Your task to perform on an android device: check data usage Image 0: 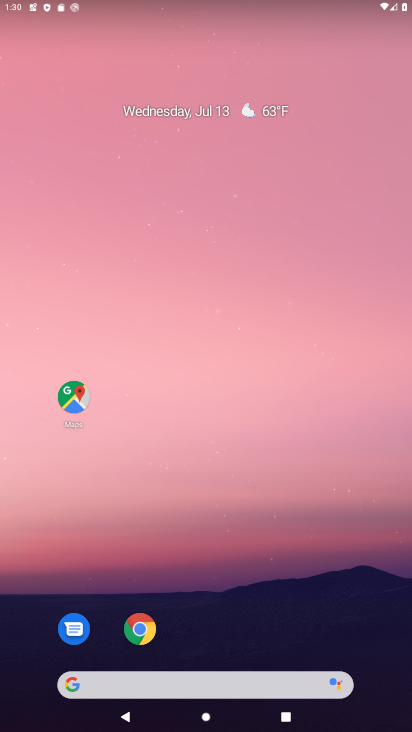
Step 0: drag from (174, 595) to (251, 184)
Your task to perform on an android device: check data usage Image 1: 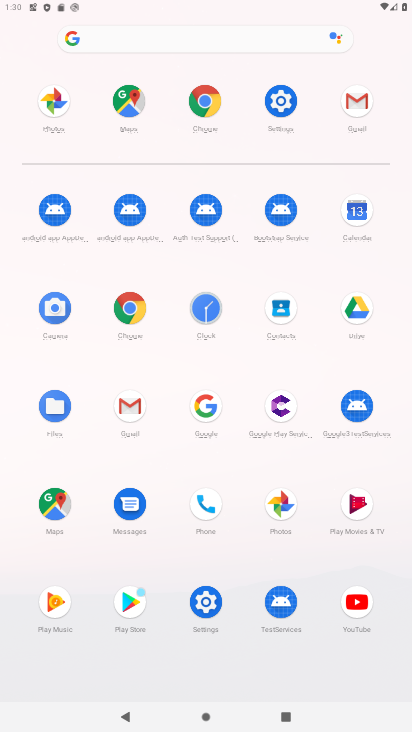
Step 1: click (205, 604)
Your task to perform on an android device: check data usage Image 2: 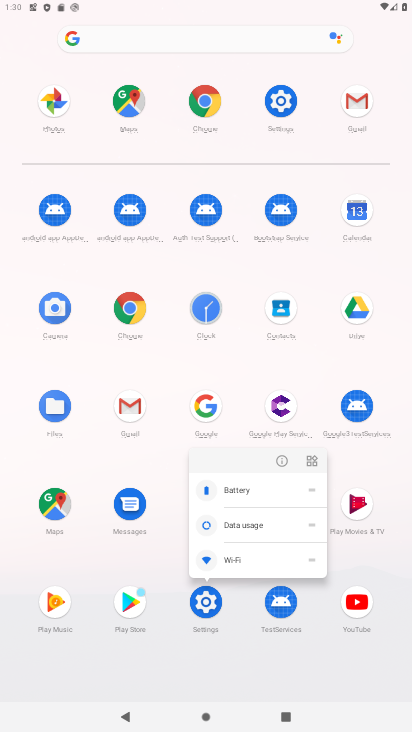
Step 2: click (234, 514)
Your task to perform on an android device: check data usage Image 3: 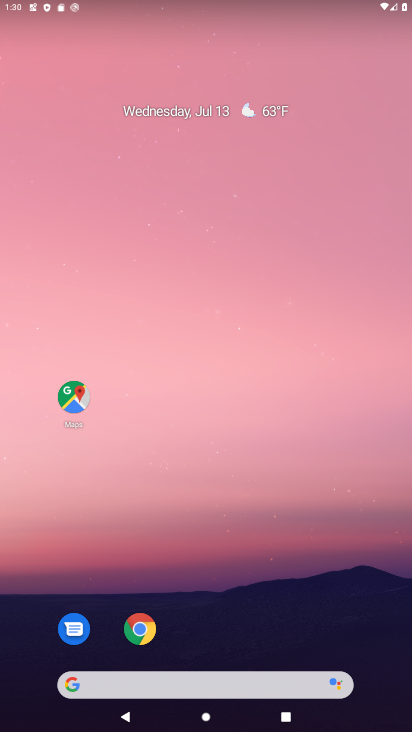
Step 3: drag from (195, 592) to (207, 155)
Your task to perform on an android device: check data usage Image 4: 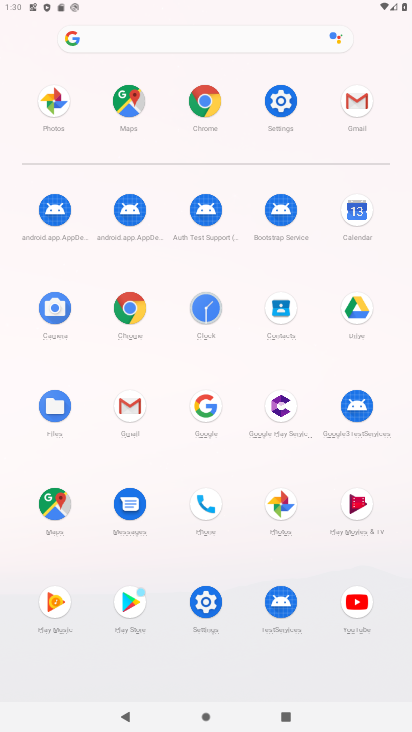
Step 4: click (278, 97)
Your task to perform on an android device: check data usage Image 5: 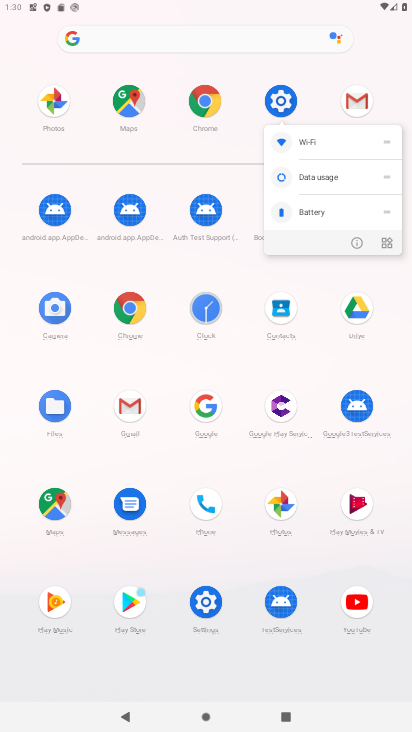
Step 5: click (351, 241)
Your task to perform on an android device: check data usage Image 6: 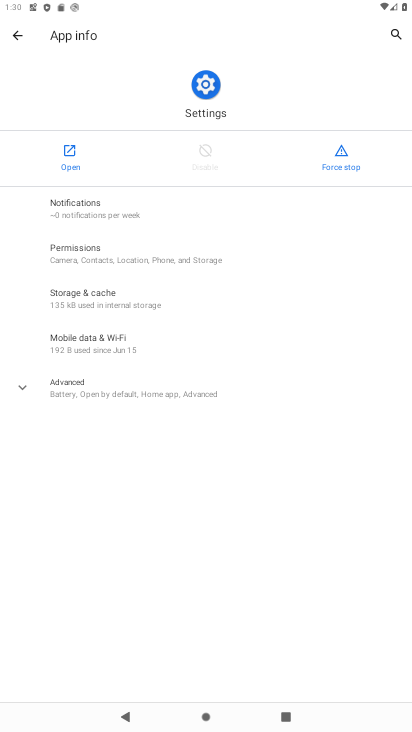
Step 6: click (72, 162)
Your task to perform on an android device: check data usage Image 7: 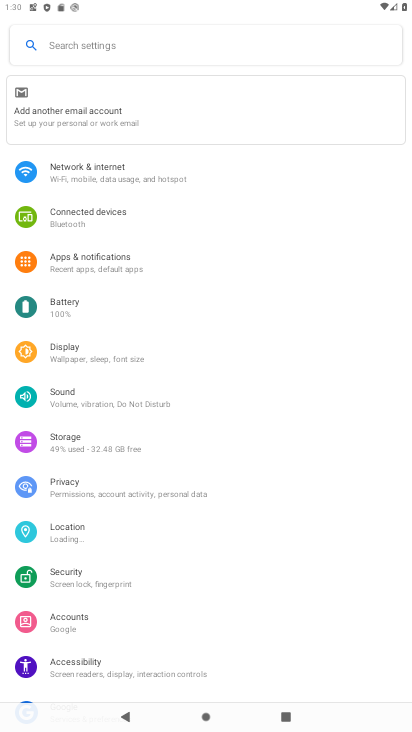
Step 7: drag from (163, 554) to (165, 286)
Your task to perform on an android device: check data usage Image 8: 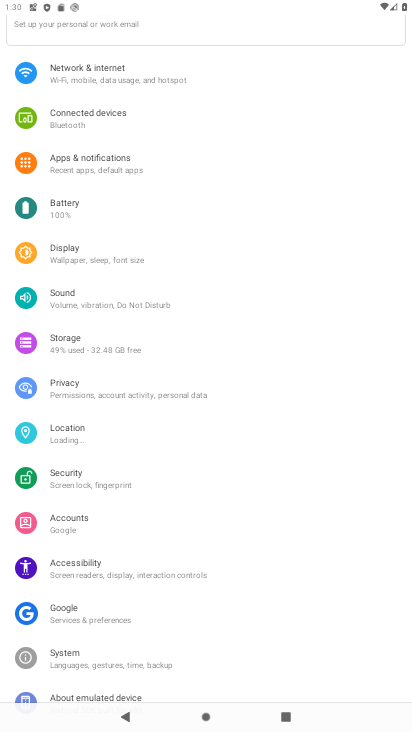
Step 8: drag from (150, 207) to (234, 694)
Your task to perform on an android device: check data usage Image 9: 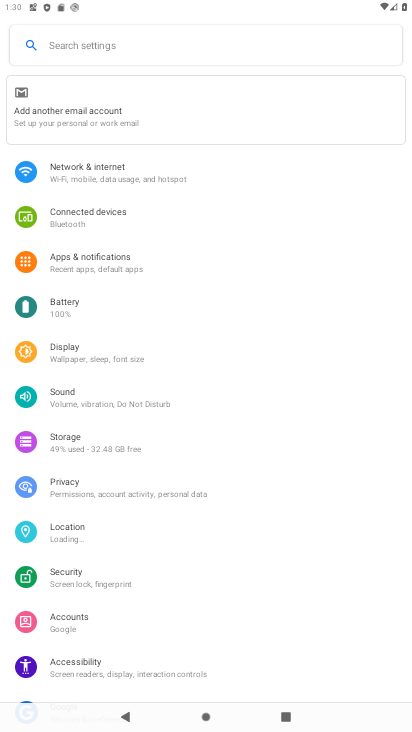
Step 9: click (143, 168)
Your task to perform on an android device: check data usage Image 10: 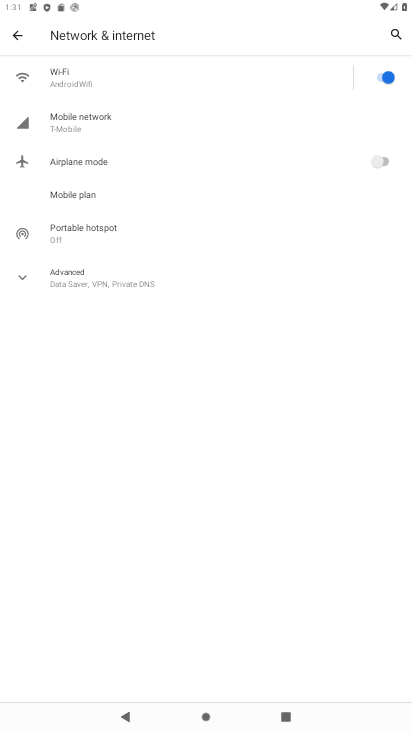
Step 10: click (123, 112)
Your task to perform on an android device: check data usage Image 11: 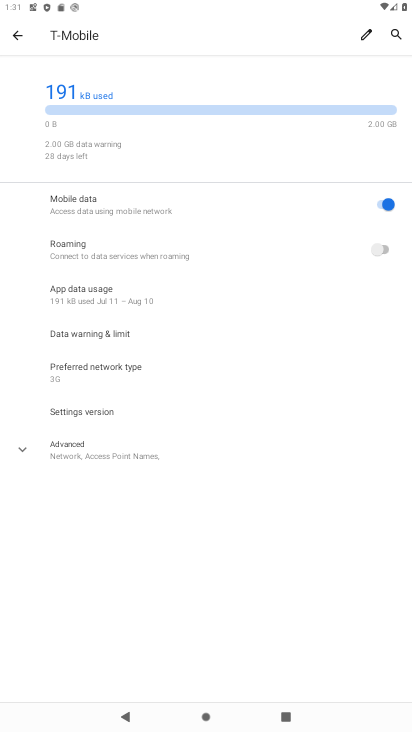
Step 11: click (121, 286)
Your task to perform on an android device: check data usage Image 12: 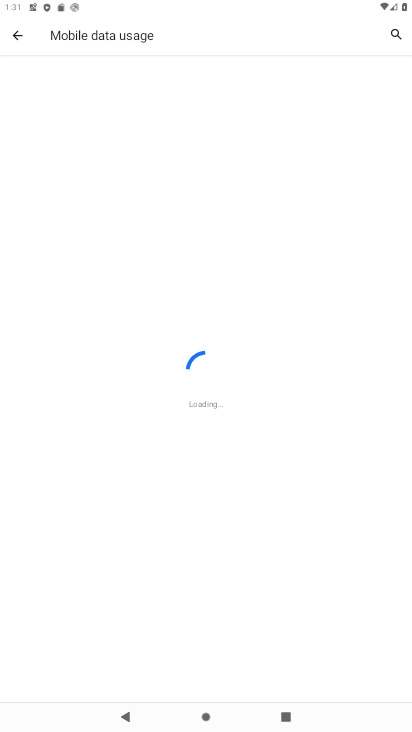
Step 12: click (24, 35)
Your task to perform on an android device: check data usage Image 13: 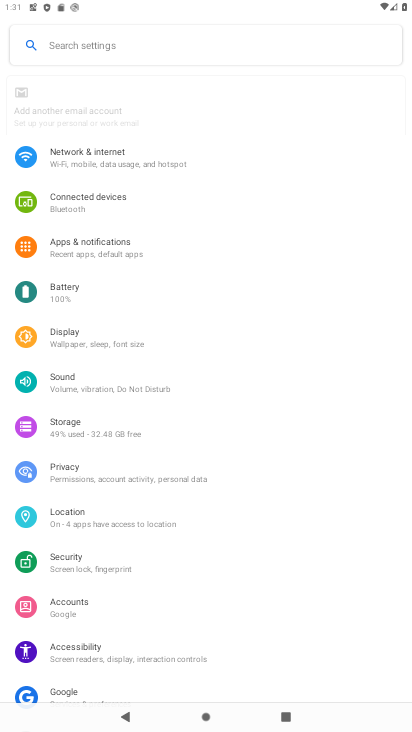
Step 13: drag from (213, 457) to (299, 234)
Your task to perform on an android device: check data usage Image 14: 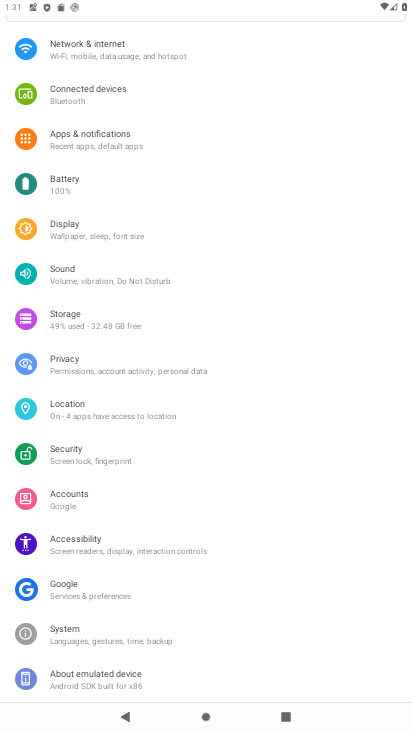
Step 14: drag from (168, 152) to (225, 481)
Your task to perform on an android device: check data usage Image 15: 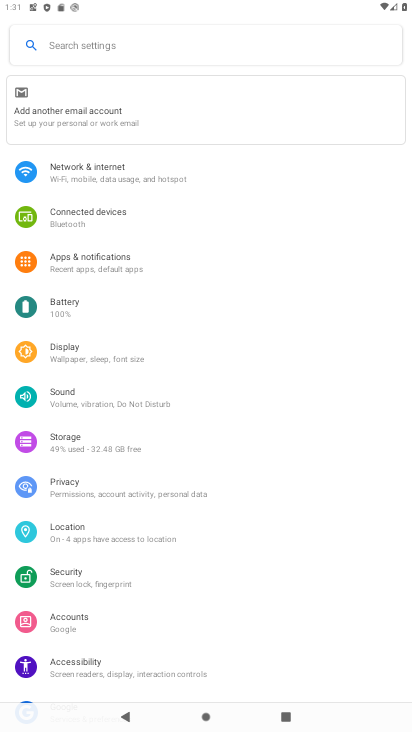
Step 15: click (153, 171)
Your task to perform on an android device: check data usage Image 16: 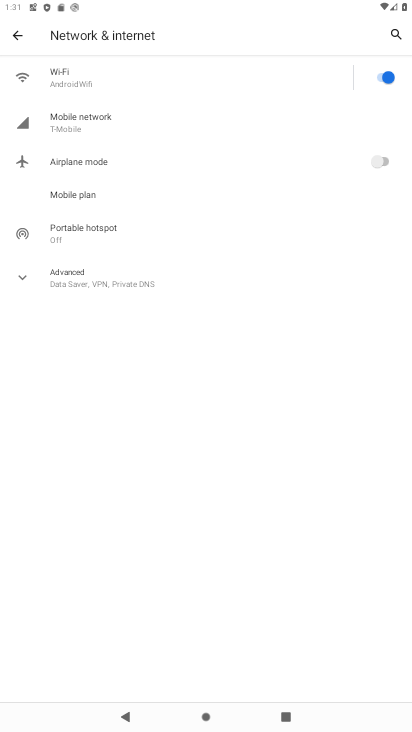
Step 16: click (120, 125)
Your task to perform on an android device: check data usage Image 17: 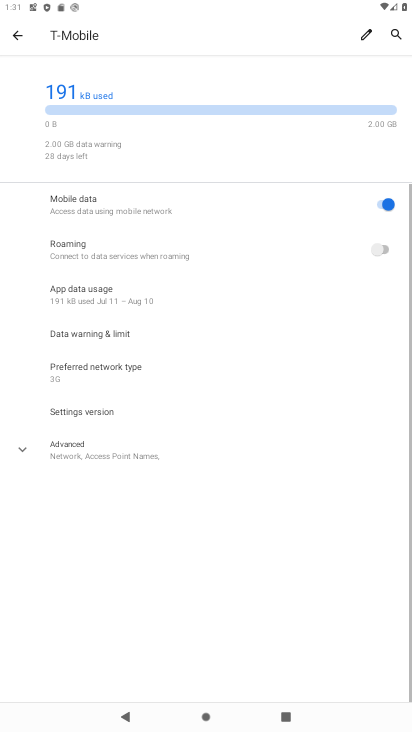
Step 17: task complete